Your task to perform on an android device: Find coffee shops on Maps Image 0: 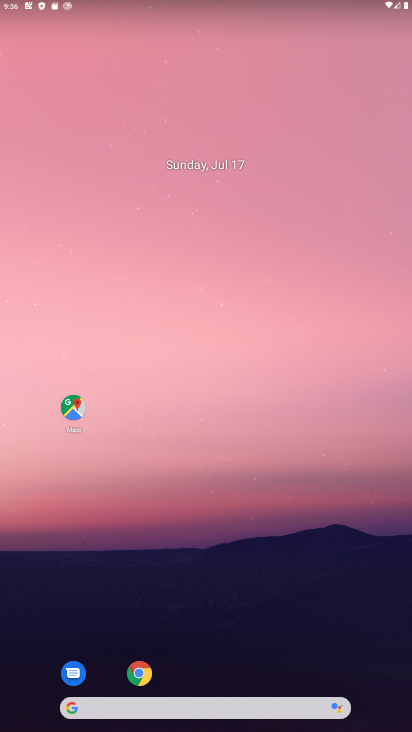
Step 0: click (78, 408)
Your task to perform on an android device: Find coffee shops on Maps Image 1: 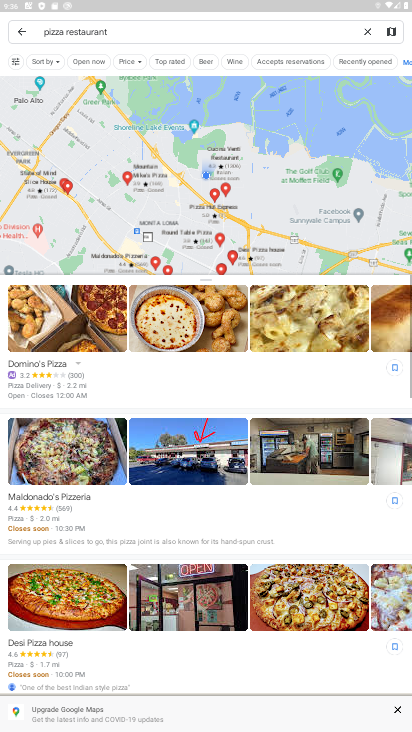
Step 1: click (210, 27)
Your task to perform on an android device: Find coffee shops on Maps Image 2: 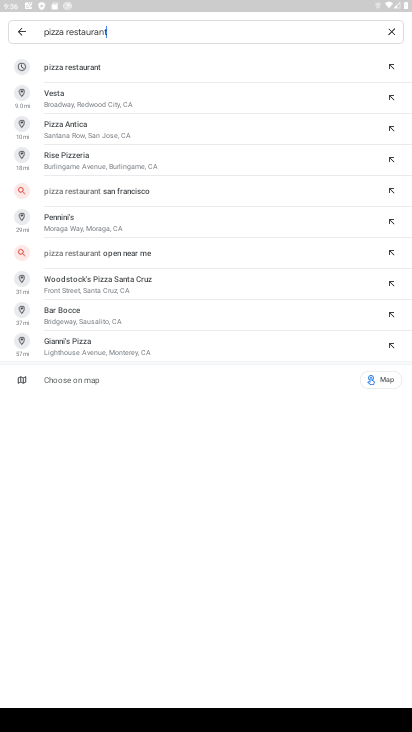
Step 2: click (390, 27)
Your task to perform on an android device: Find coffee shops on Maps Image 3: 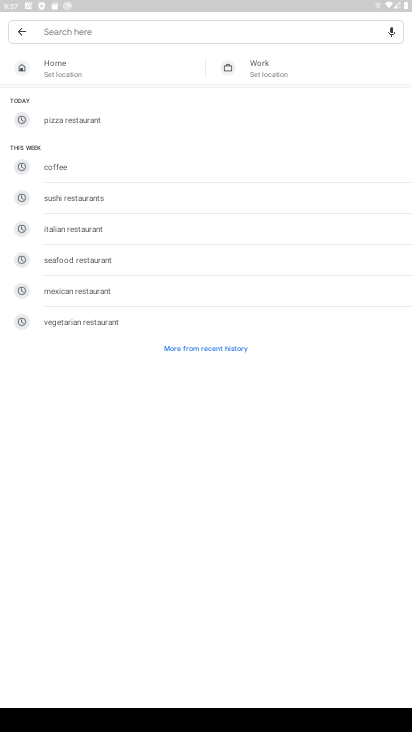
Step 3: type "coffee shops"
Your task to perform on an android device: Find coffee shops on Maps Image 4: 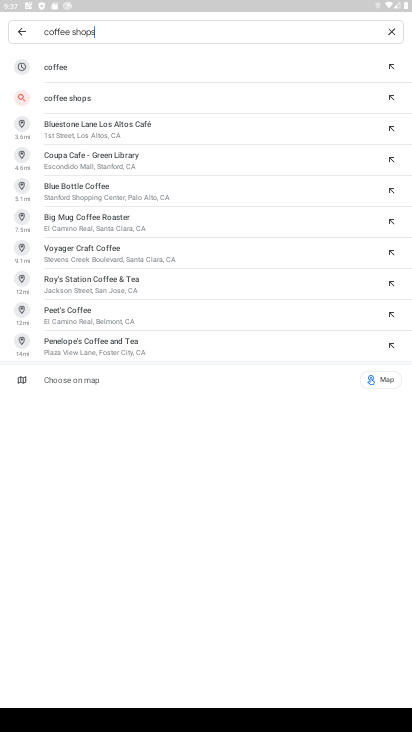
Step 4: click (102, 97)
Your task to perform on an android device: Find coffee shops on Maps Image 5: 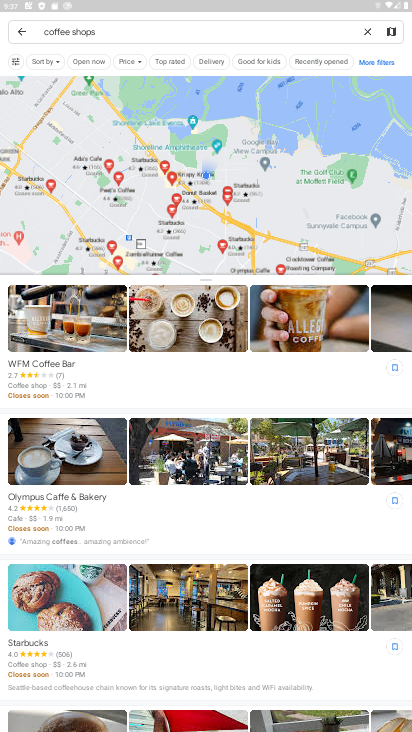
Step 5: task complete